Your task to perform on an android device: change keyboard looks Image 0: 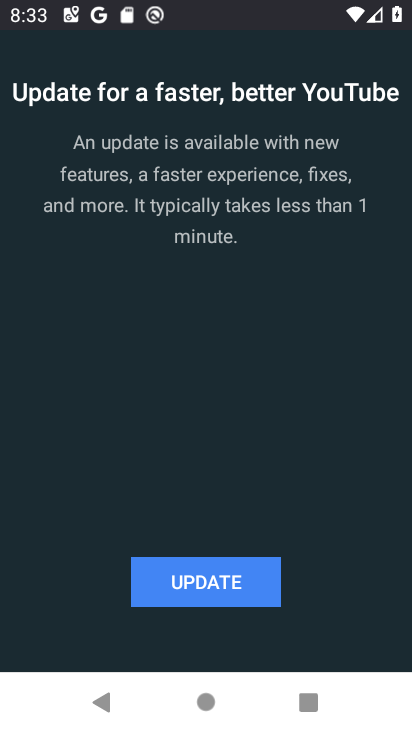
Step 0: press back button
Your task to perform on an android device: change keyboard looks Image 1: 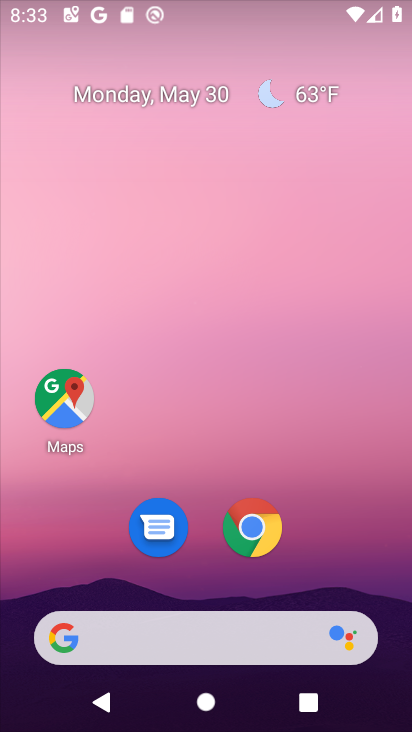
Step 1: drag from (327, 550) to (308, 198)
Your task to perform on an android device: change keyboard looks Image 2: 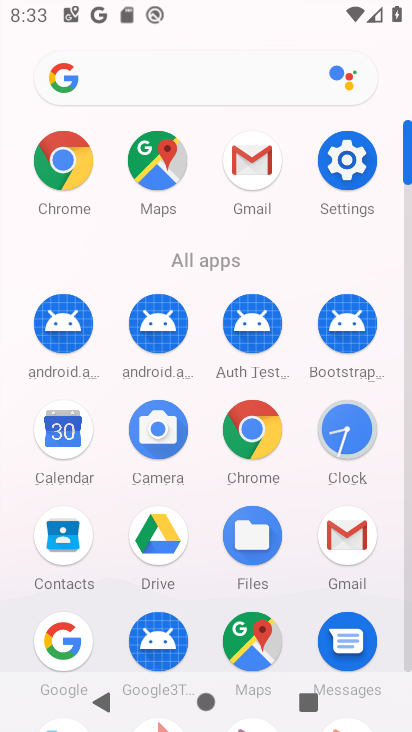
Step 2: click (349, 154)
Your task to perform on an android device: change keyboard looks Image 3: 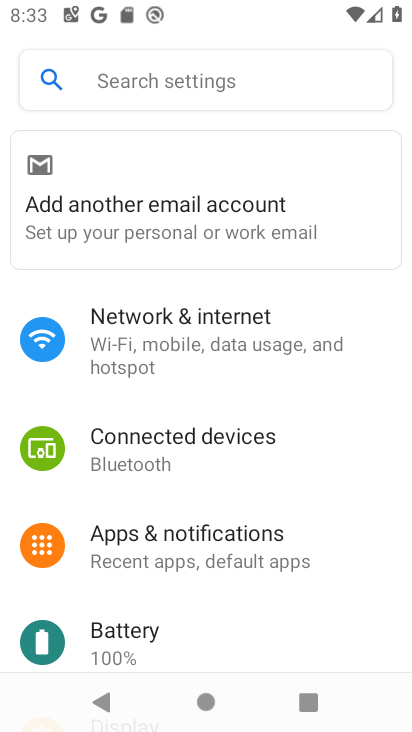
Step 3: drag from (254, 620) to (273, 332)
Your task to perform on an android device: change keyboard looks Image 4: 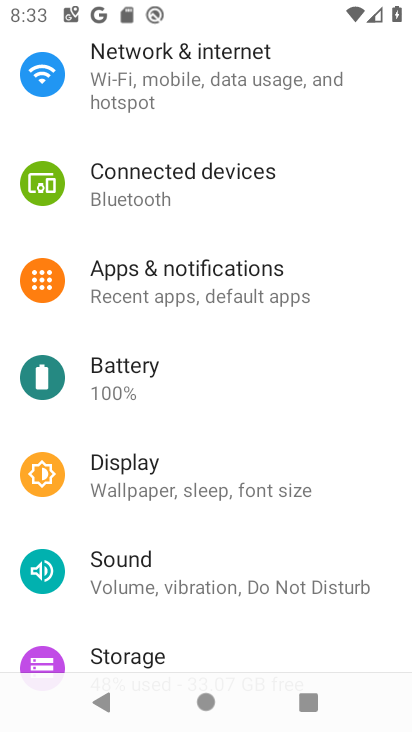
Step 4: drag from (190, 599) to (227, 264)
Your task to perform on an android device: change keyboard looks Image 5: 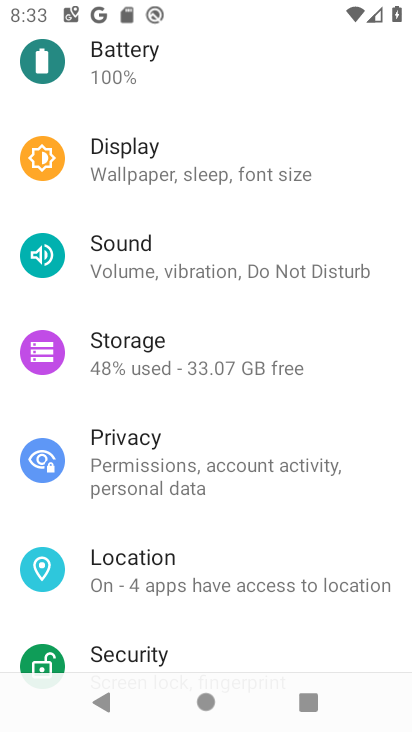
Step 5: drag from (220, 522) to (224, 365)
Your task to perform on an android device: change keyboard looks Image 6: 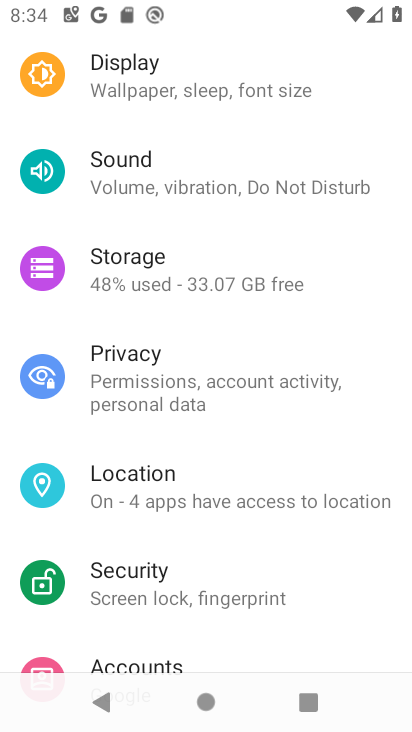
Step 6: drag from (136, 569) to (180, 305)
Your task to perform on an android device: change keyboard looks Image 7: 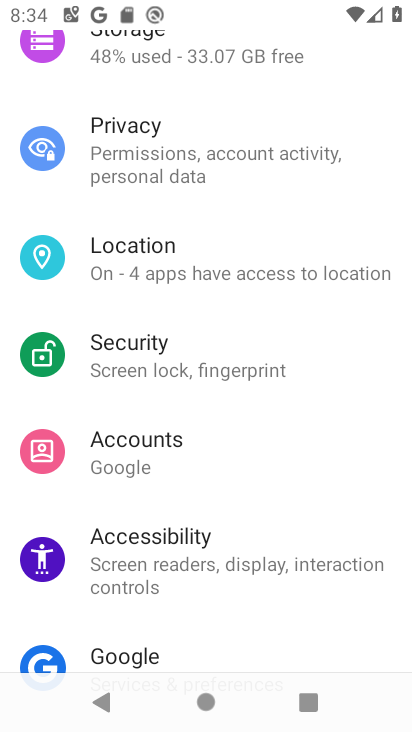
Step 7: drag from (214, 572) to (216, 414)
Your task to perform on an android device: change keyboard looks Image 8: 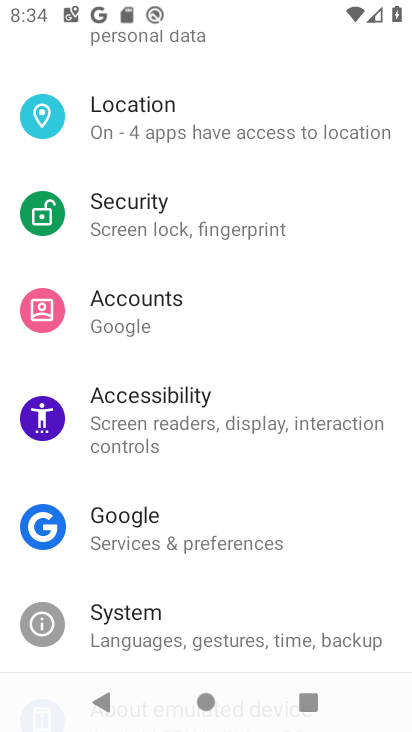
Step 8: click (195, 642)
Your task to perform on an android device: change keyboard looks Image 9: 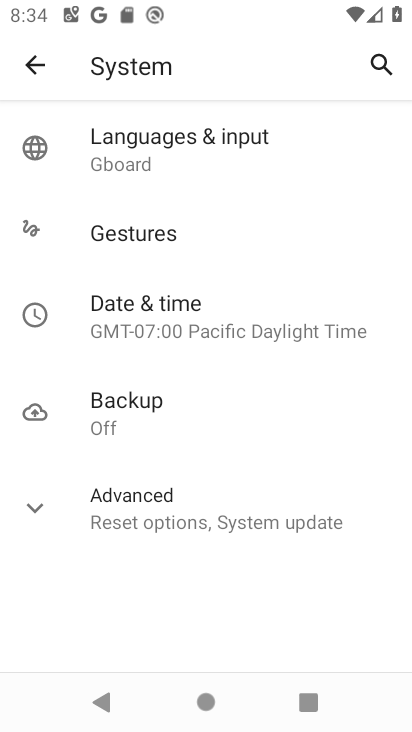
Step 9: click (151, 122)
Your task to perform on an android device: change keyboard looks Image 10: 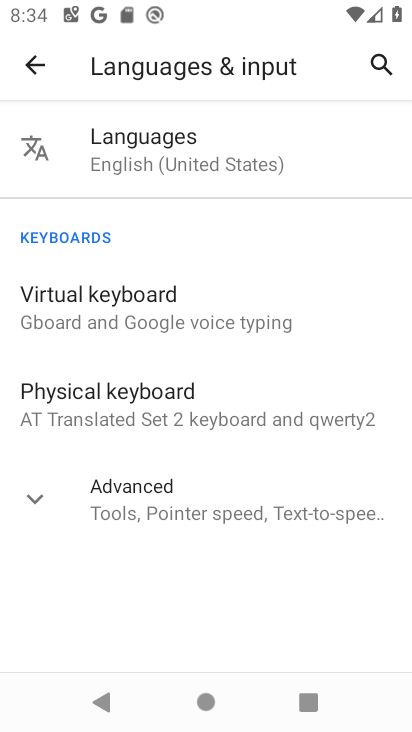
Step 10: click (140, 319)
Your task to perform on an android device: change keyboard looks Image 11: 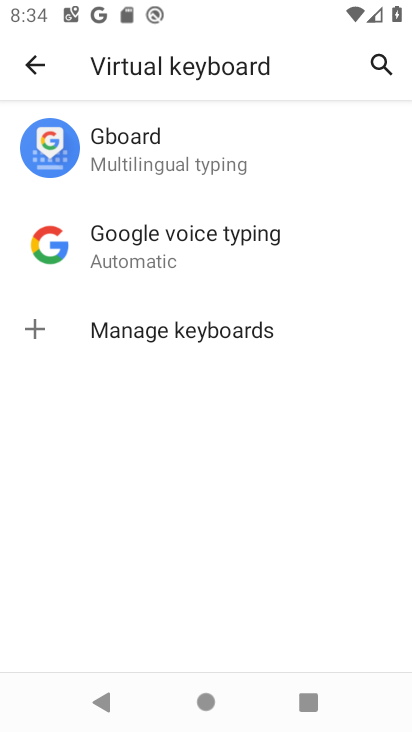
Step 11: click (147, 154)
Your task to perform on an android device: change keyboard looks Image 12: 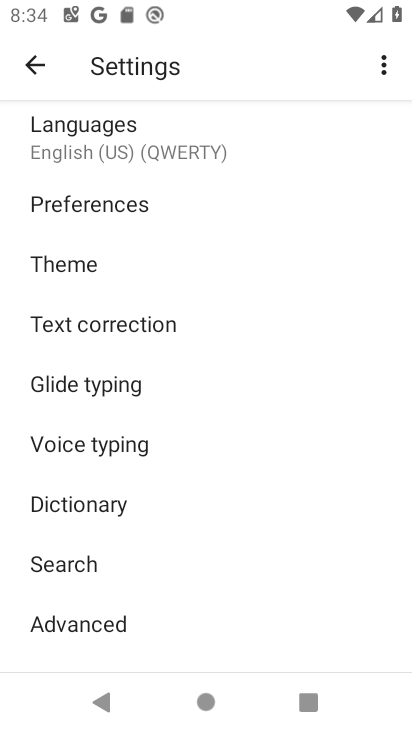
Step 12: click (147, 154)
Your task to perform on an android device: change keyboard looks Image 13: 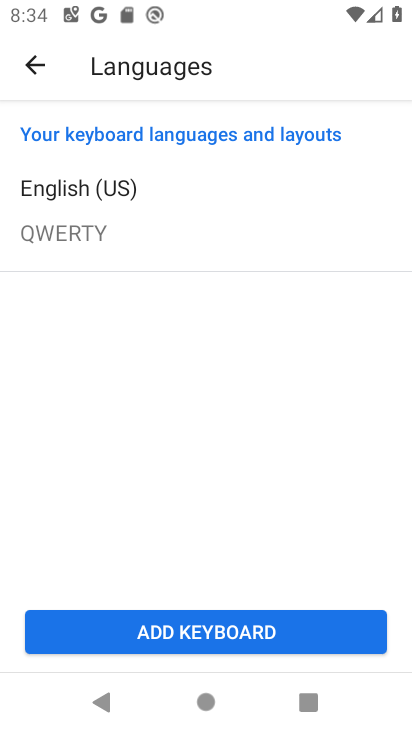
Step 13: click (28, 80)
Your task to perform on an android device: change keyboard looks Image 14: 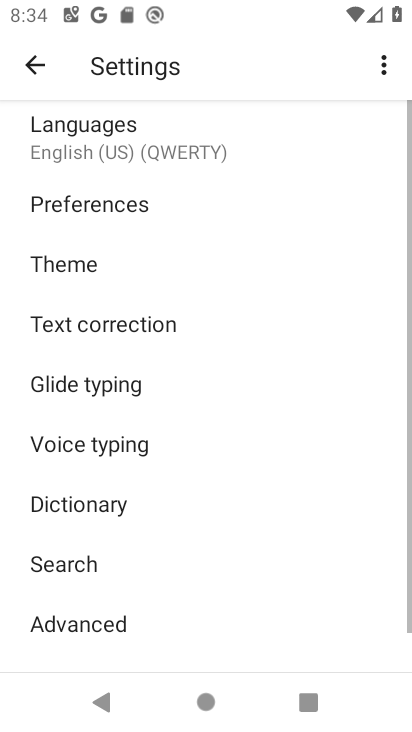
Step 14: click (63, 235)
Your task to perform on an android device: change keyboard looks Image 15: 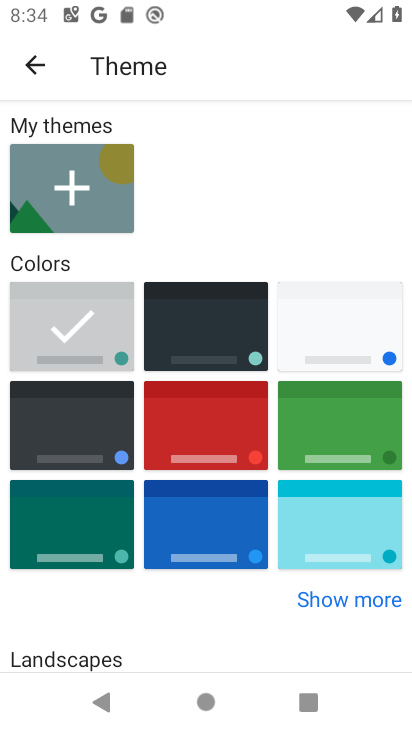
Step 15: click (226, 537)
Your task to perform on an android device: change keyboard looks Image 16: 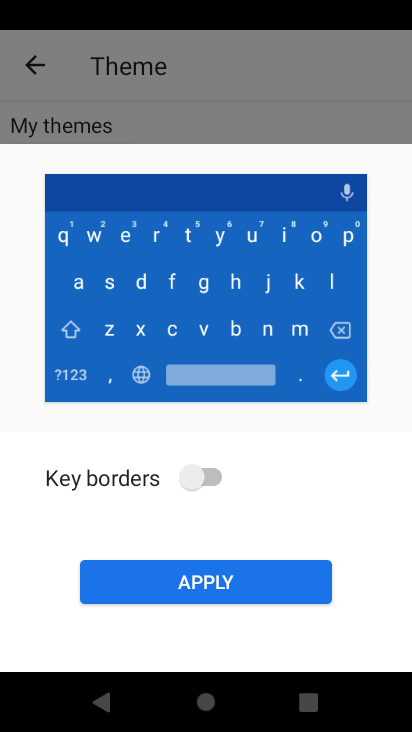
Step 16: click (188, 455)
Your task to perform on an android device: change keyboard looks Image 17: 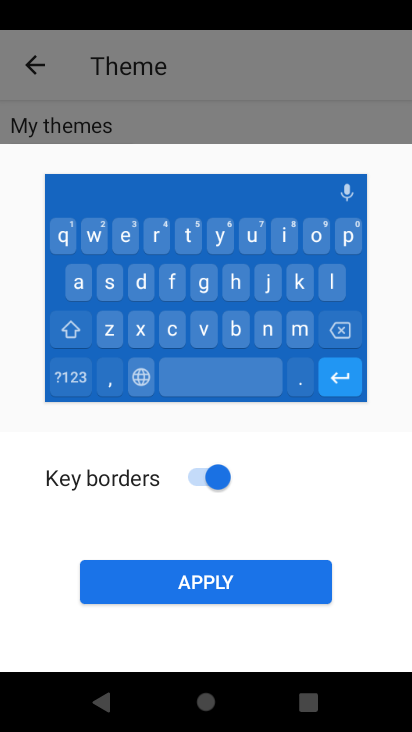
Step 17: click (271, 577)
Your task to perform on an android device: change keyboard looks Image 18: 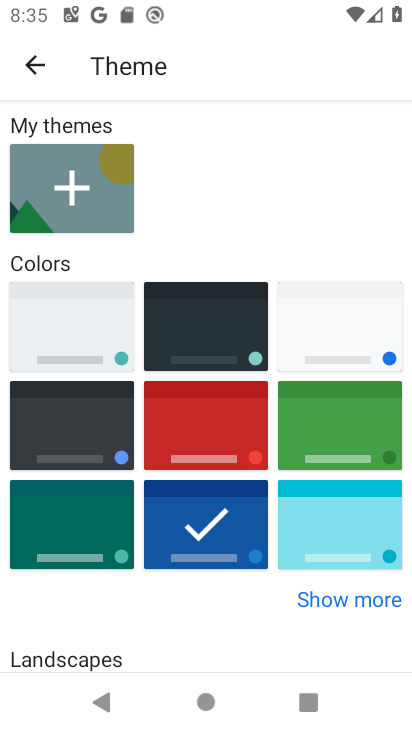
Step 18: task complete